Your task to perform on an android device: allow cookies in the chrome app Image 0: 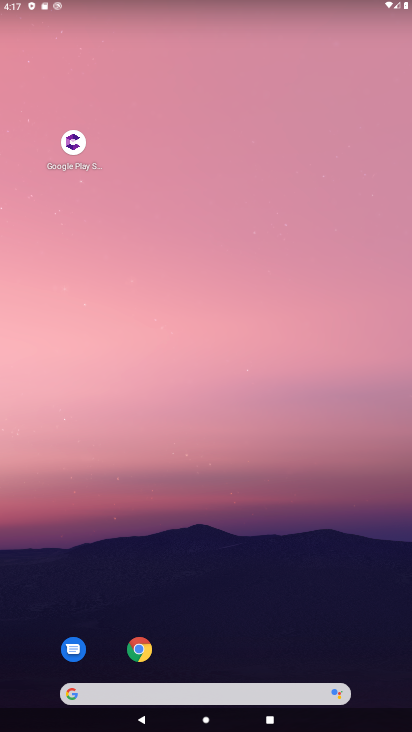
Step 0: drag from (280, 569) to (320, 56)
Your task to perform on an android device: allow cookies in the chrome app Image 1: 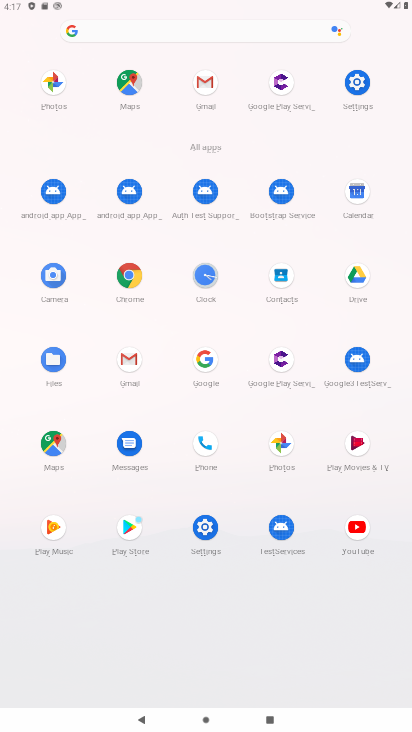
Step 1: click (132, 261)
Your task to perform on an android device: allow cookies in the chrome app Image 2: 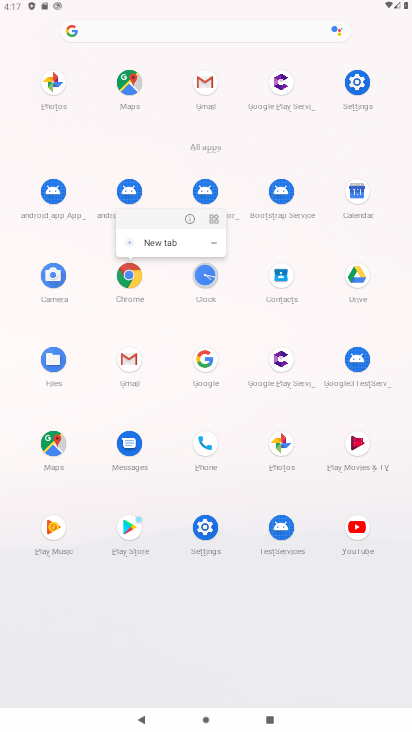
Step 2: click (124, 275)
Your task to perform on an android device: allow cookies in the chrome app Image 3: 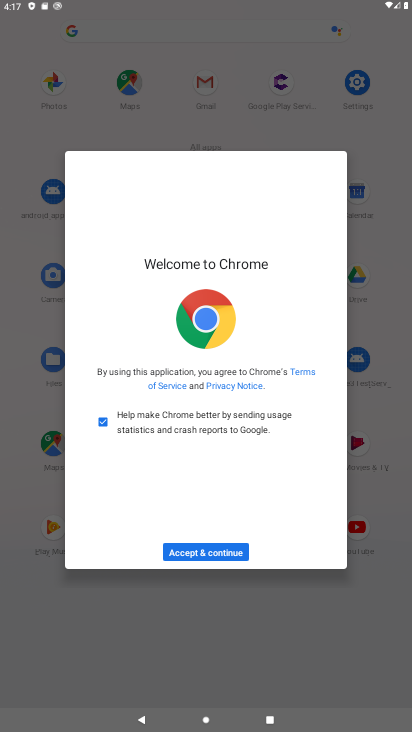
Step 3: click (178, 557)
Your task to perform on an android device: allow cookies in the chrome app Image 4: 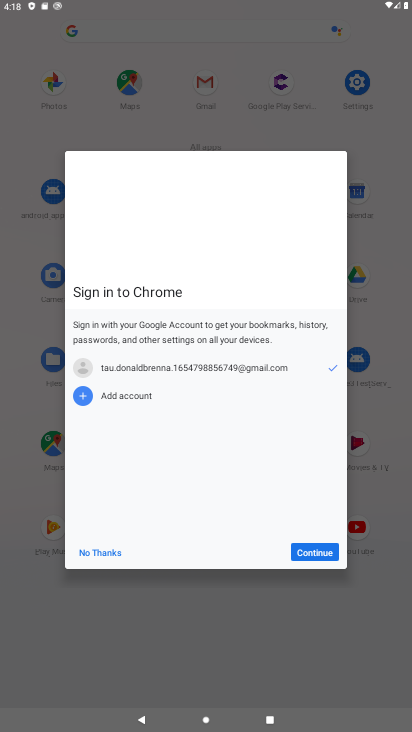
Step 4: click (102, 552)
Your task to perform on an android device: allow cookies in the chrome app Image 5: 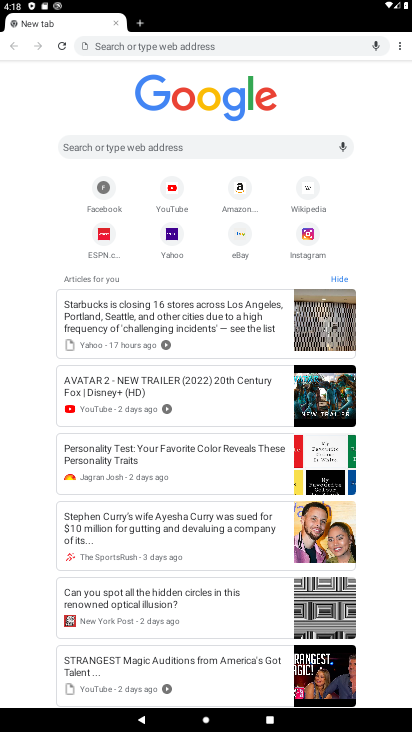
Step 5: drag from (397, 38) to (331, 214)
Your task to perform on an android device: allow cookies in the chrome app Image 6: 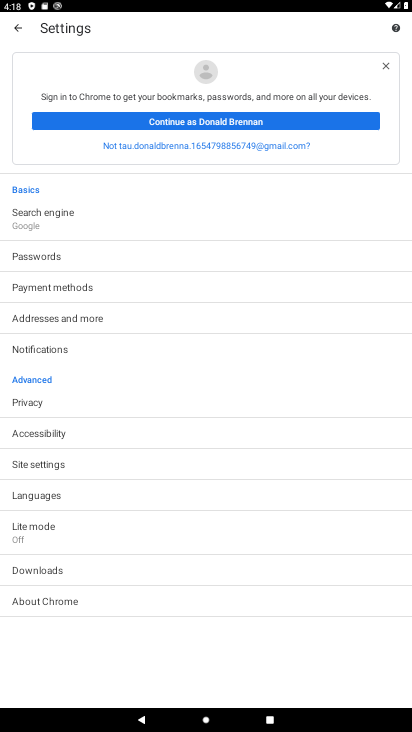
Step 6: click (45, 465)
Your task to perform on an android device: allow cookies in the chrome app Image 7: 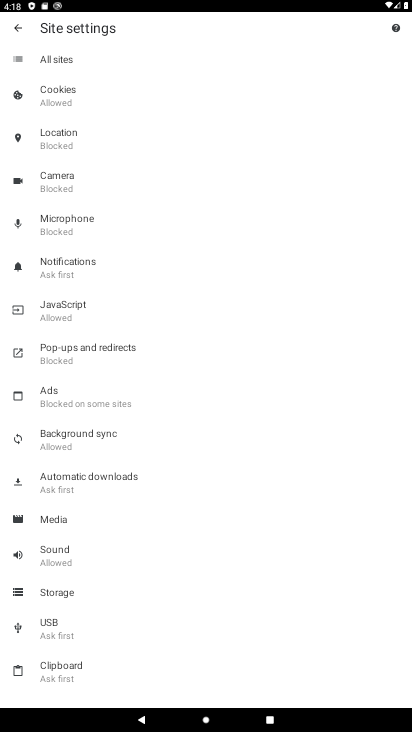
Step 7: click (77, 88)
Your task to perform on an android device: allow cookies in the chrome app Image 8: 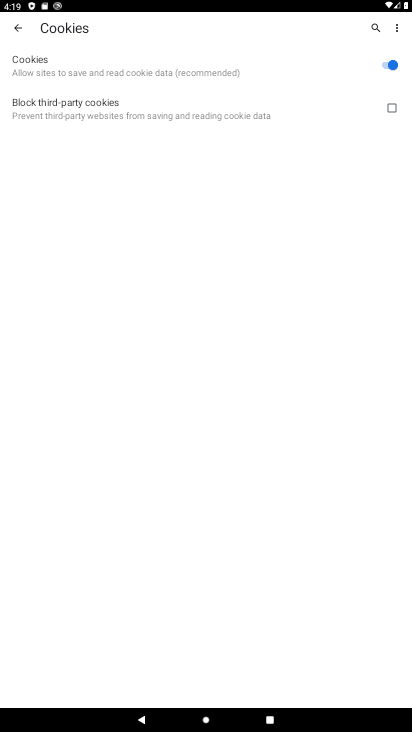
Step 8: task complete